Your task to perform on an android device: Open Youtube and go to the subscriptions tab Image 0: 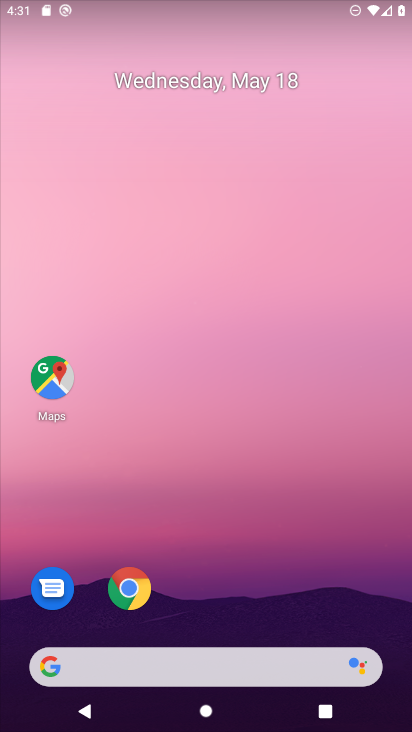
Step 0: drag from (238, 598) to (241, 61)
Your task to perform on an android device: Open Youtube and go to the subscriptions tab Image 1: 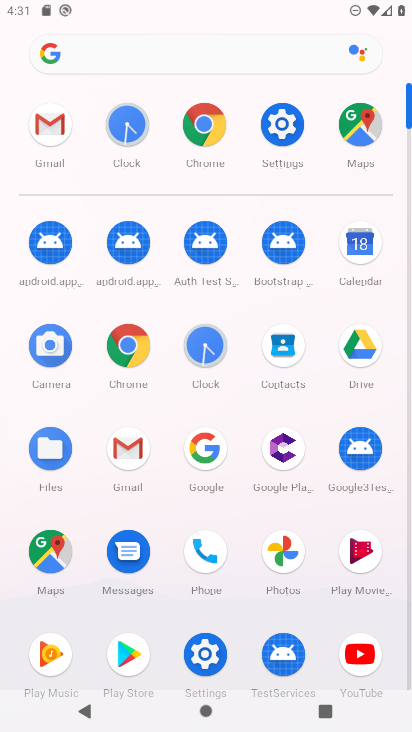
Step 1: click (369, 661)
Your task to perform on an android device: Open Youtube and go to the subscriptions tab Image 2: 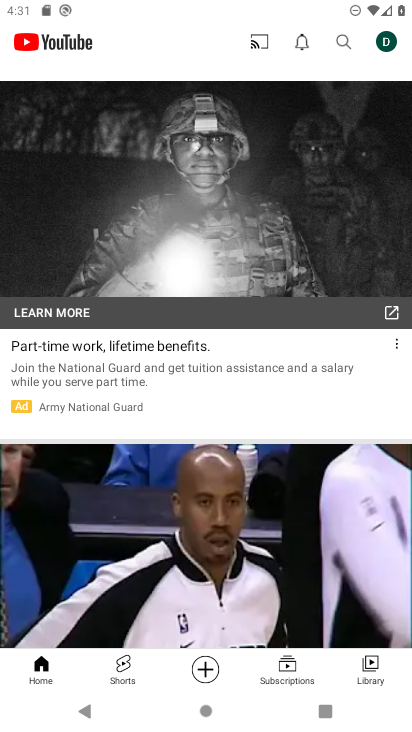
Step 2: click (283, 671)
Your task to perform on an android device: Open Youtube and go to the subscriptions tab Image 3: 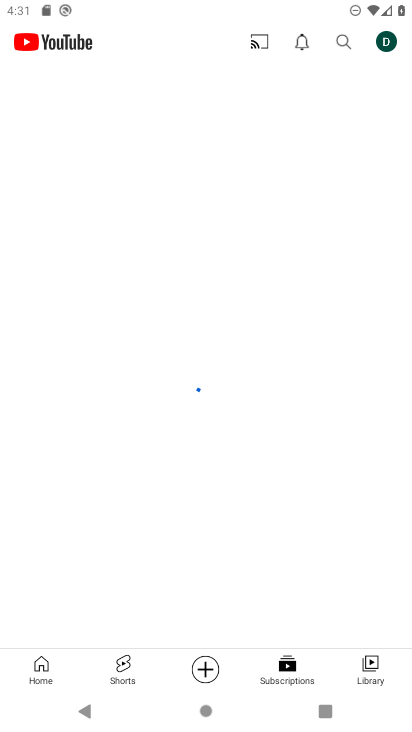
Step 3: task complete